Your task to perform on an android device: turn off sleep mode Image 0: 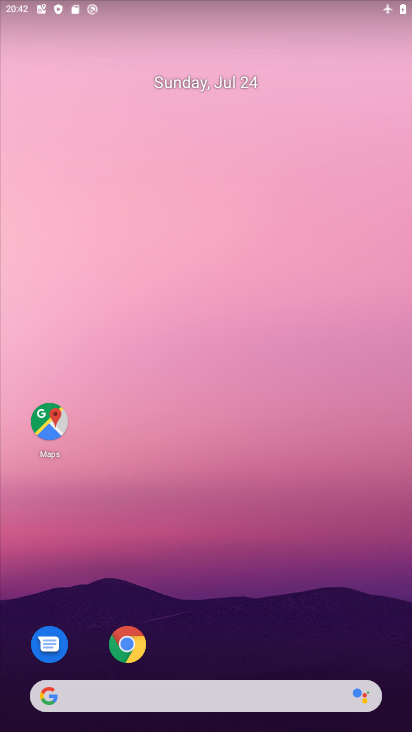
Step 0: drag from (367, 659) to (323, 282)
Your task to perform on an android device: turn off sleep mode Image 1: 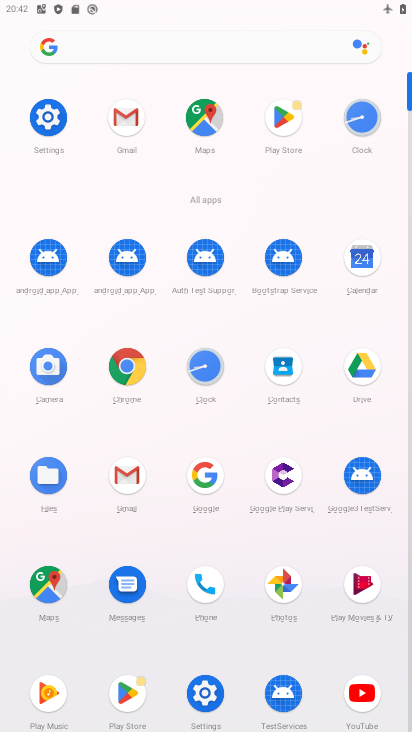
Step 1: click (207, 698)
Your task to perform on an android device: turn off sleep mode Image 2: 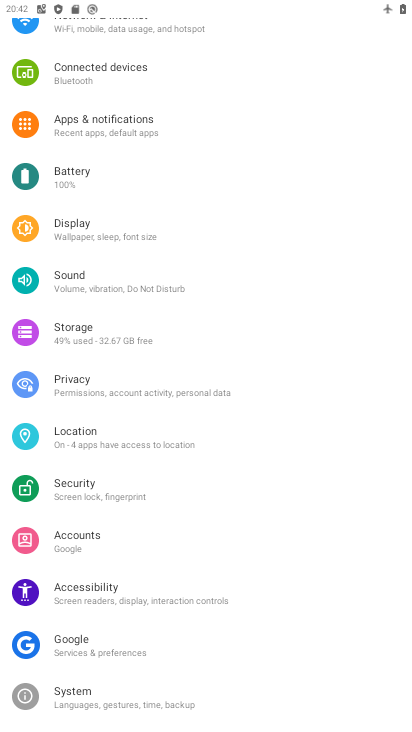
Step 2: click (84, 223)
Your task to perform on an android device: turn off sleep mode Image 3: 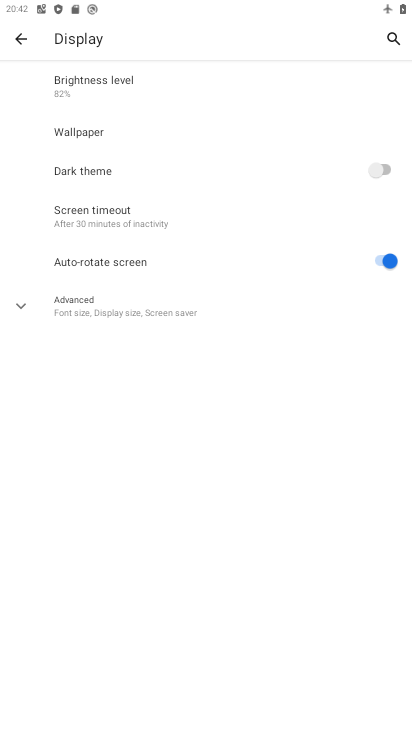
Step 3: click (24, 302)
Your task to perform on an android device: turn off sleep mode Image 4: 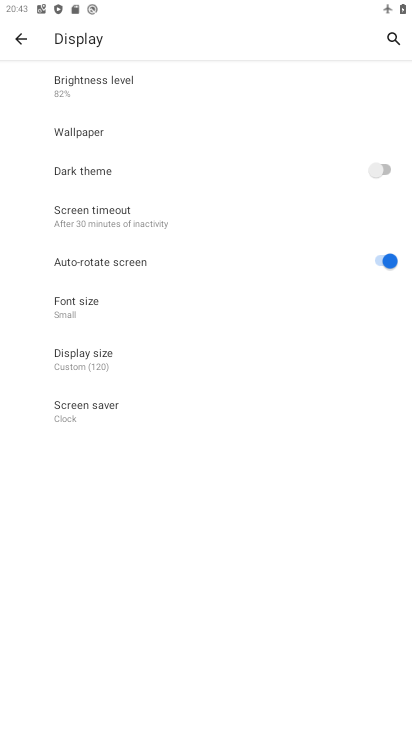
Step 4: task complete